Your task to perform on an android device: Open Google Chrome Image 0: 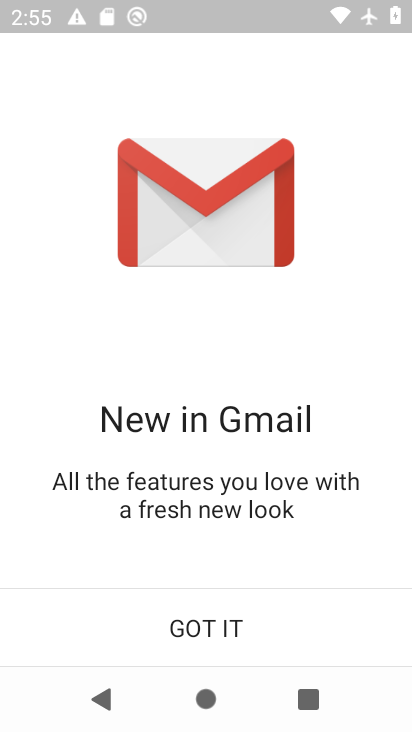
Step 0: press home button
Your task to perform on an android device: Open Google Chrome Image 1: 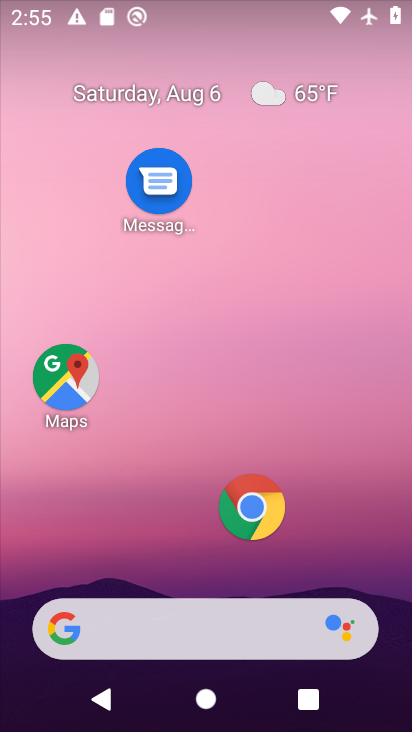
Step 1: click (244, 513)
Your task to perform on an android device: Open Google Chrome Image 2: 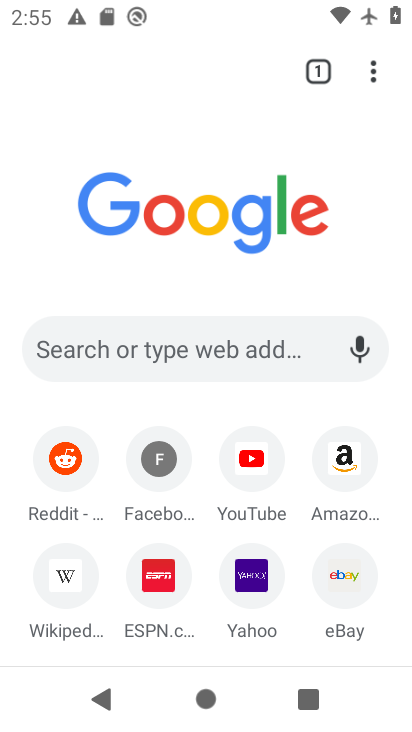
Step 2: task complete